Your task to perform on an android device: turn off location Image 0: 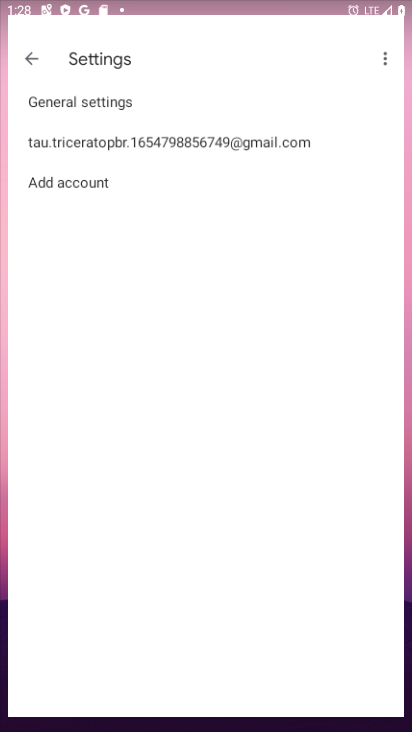
Step 0: press home button
Your task to perform on an android device: turn off location Image 1: 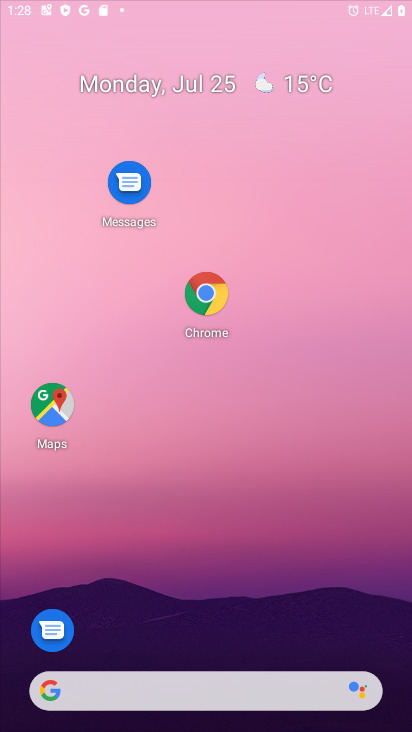
Step 1: drag from (340, 702) to (342, 35)
Your task to perform on an android device: turn off location Image 2: 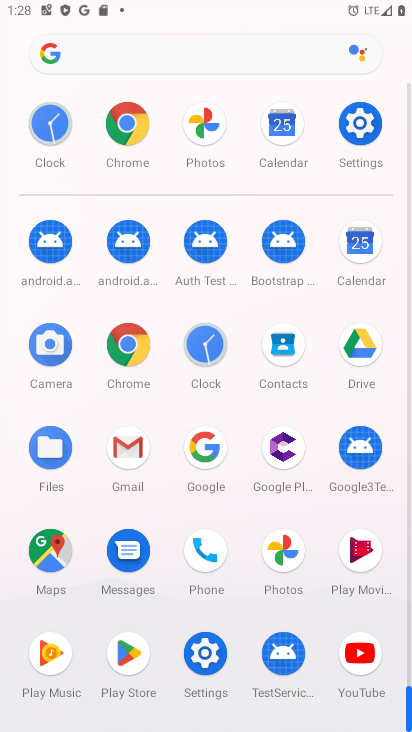
Step 2: click (191, 639)
Your task to perform on an android device: turn off location Image 3: 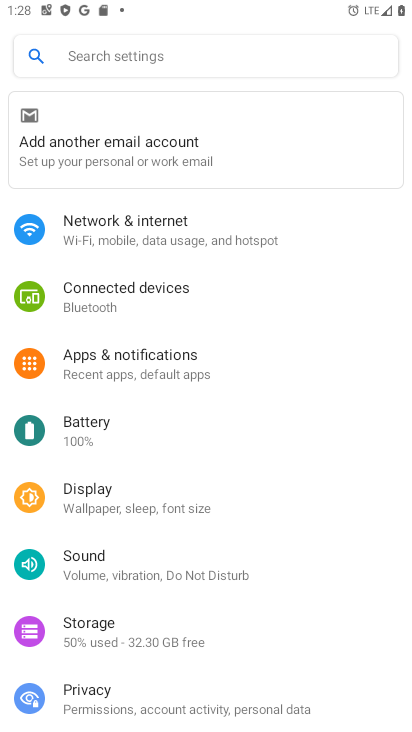
Step 3: drag from (173, 615) to (225, 78)
Your task to perform on an android device: turn off location Image 4: 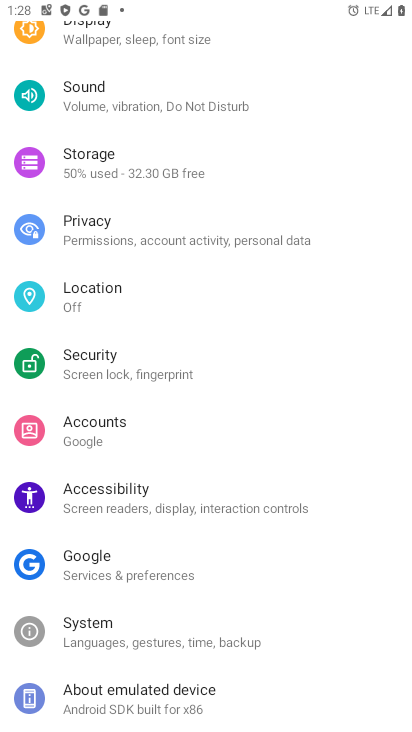
Step 4: click (106, 291)
Your task to perform on an android device: turn off location Image 5: 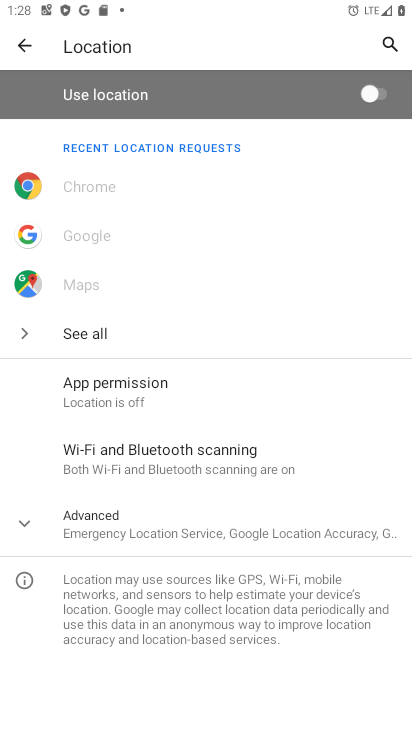
Step 5: task complete